Your task to perform on an android device: open app "Google News" Image 0: 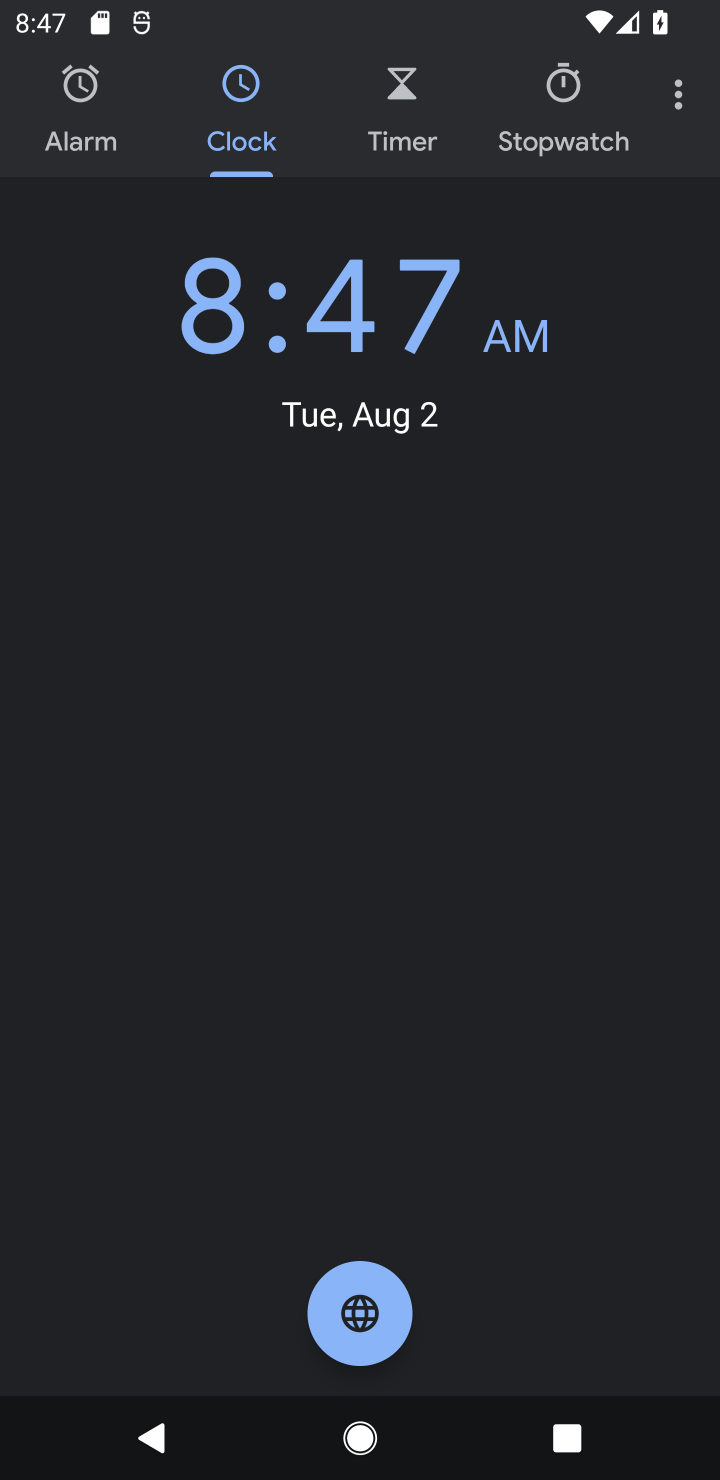
Step 0: press home button
Your task to perform on an android device: open app "Google News" Image 1: 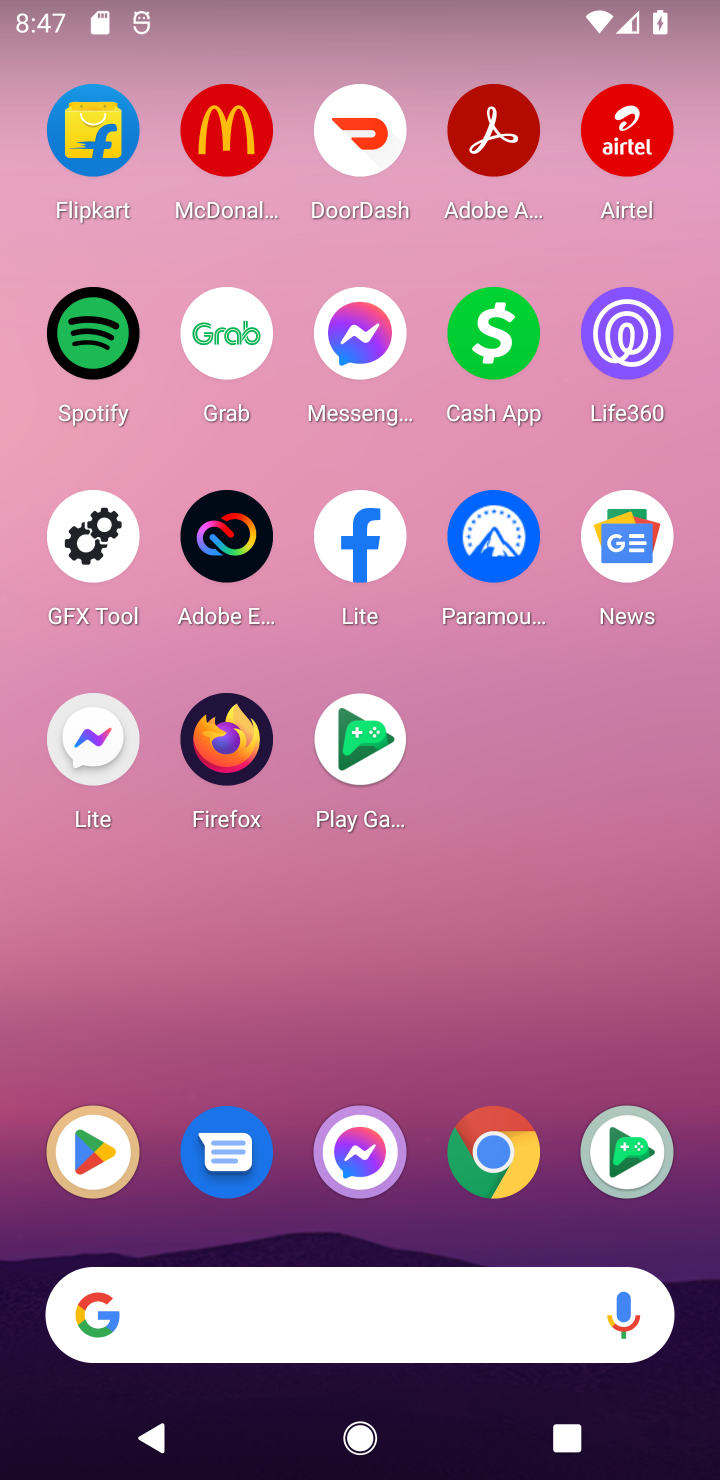
Step 1: click (103, 1134)
Your task to perform on an android device: open app "Google News" Image 2: 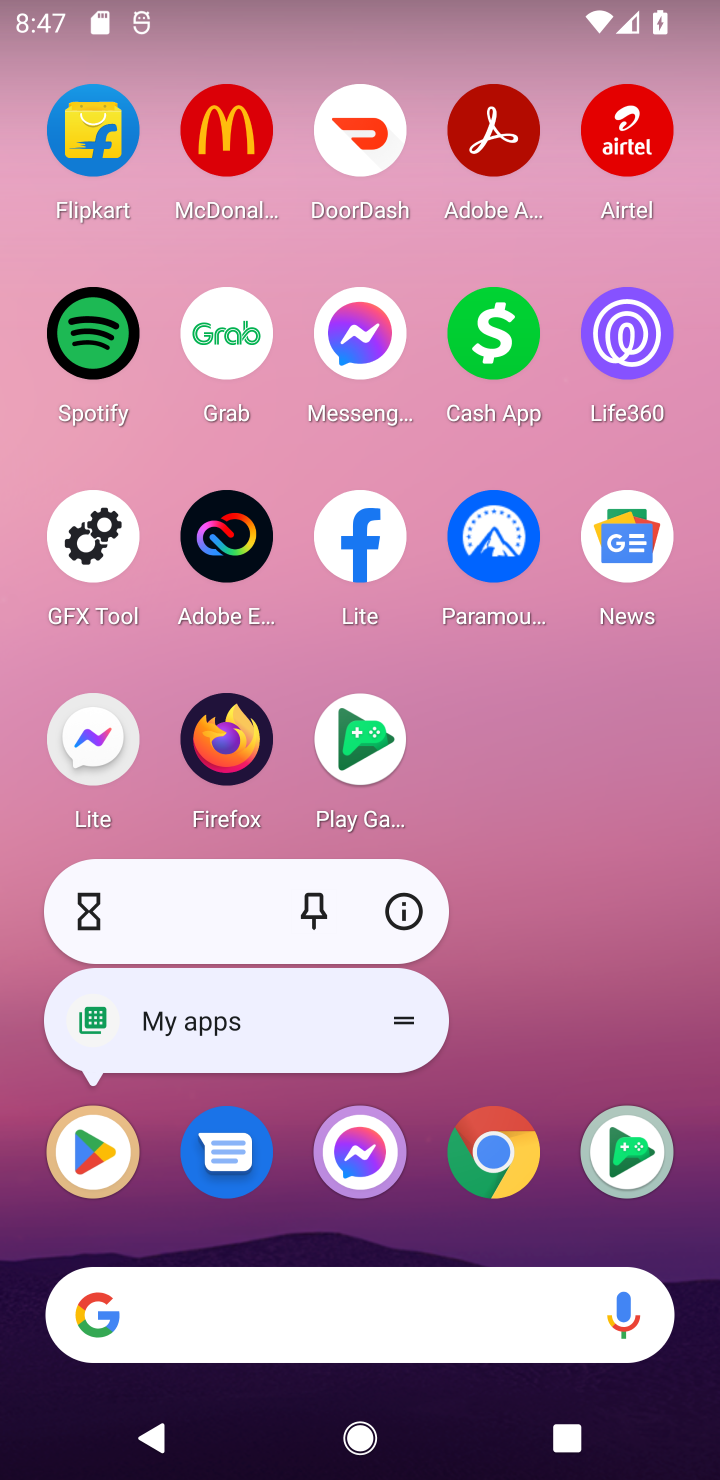
Step 2: click (93, 1176)
Your task to perform on an android device: open app "Google News" Image 3: 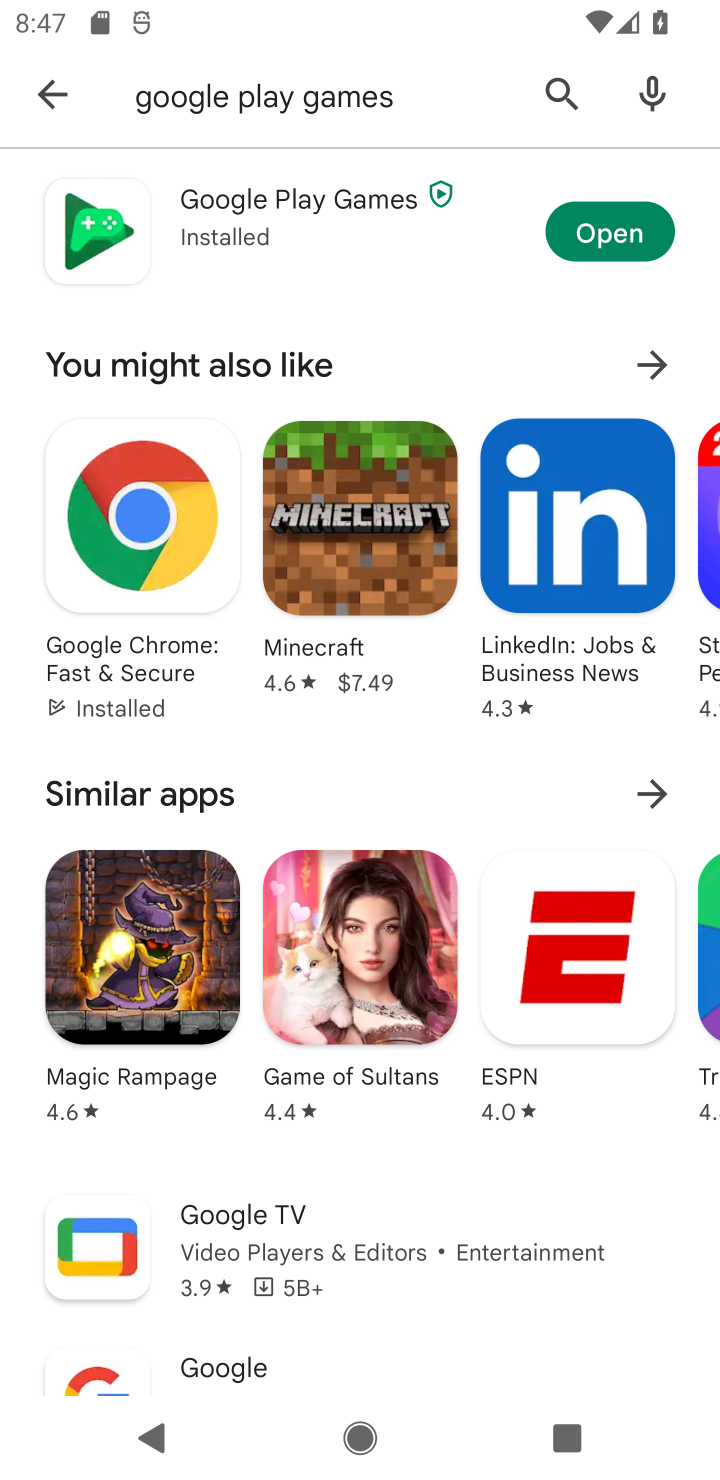
Step 3: click (53, 95)
Your task to perform on an android device: open app "Google News" Image 4: 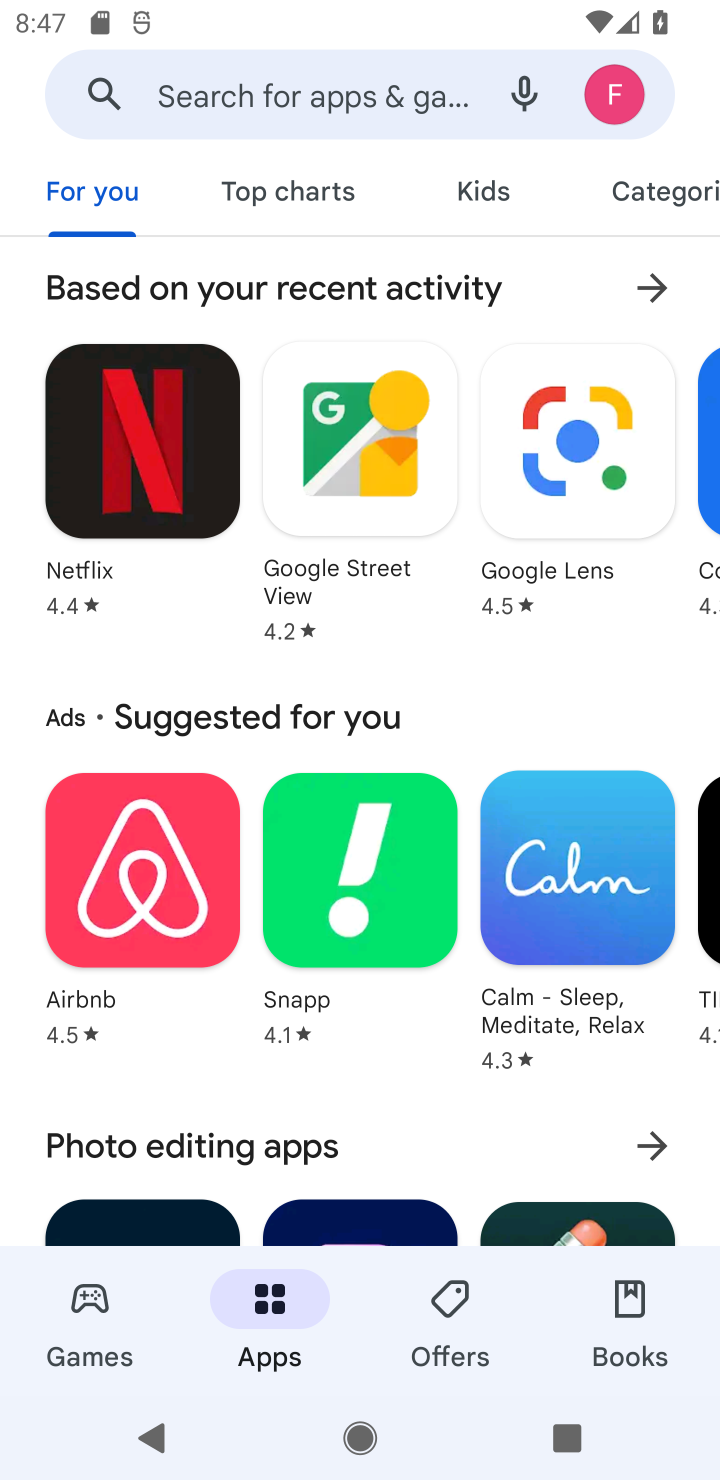
Step 4: click (354, 95)
Your task to perform on an android device: open app "Google News" Image 5: 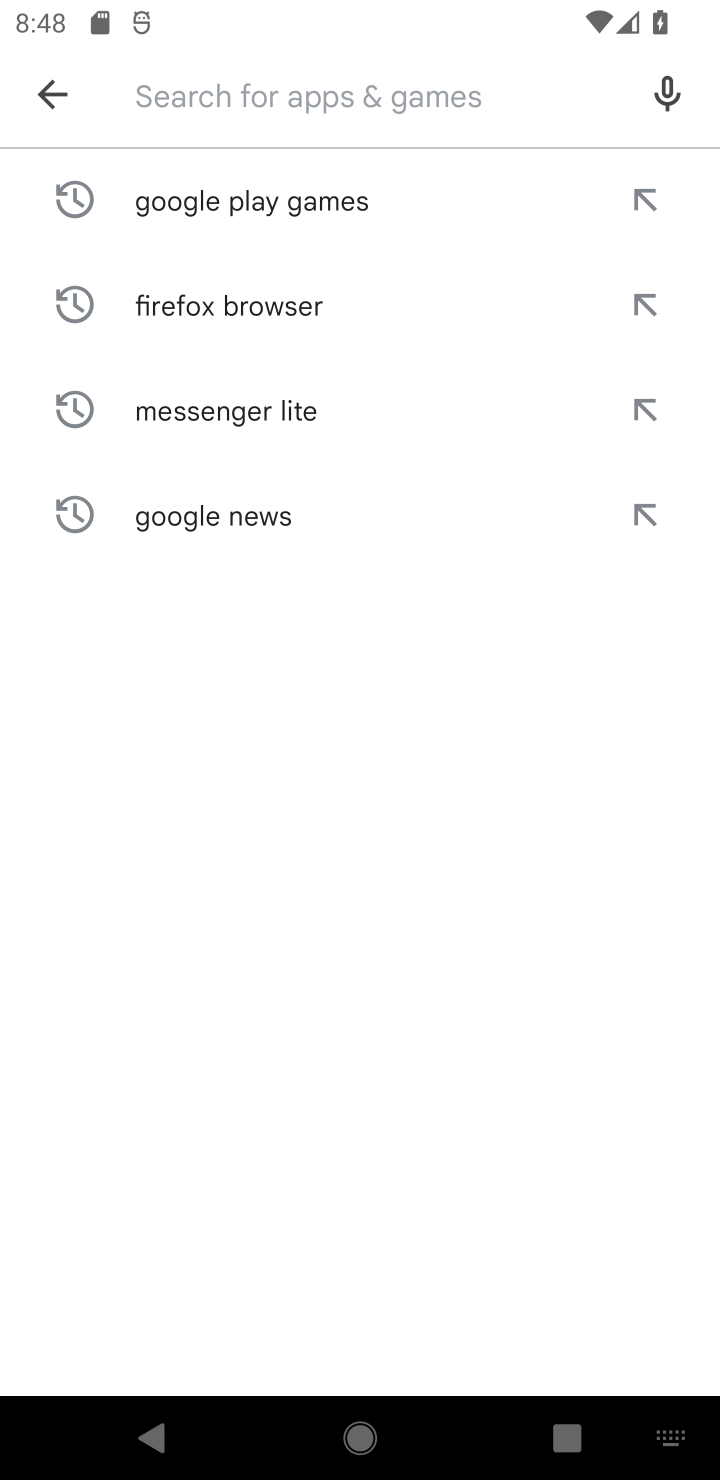
Step 5: click (103, 513)
Your task to perform on an android device: open app "Google News" Image 6: 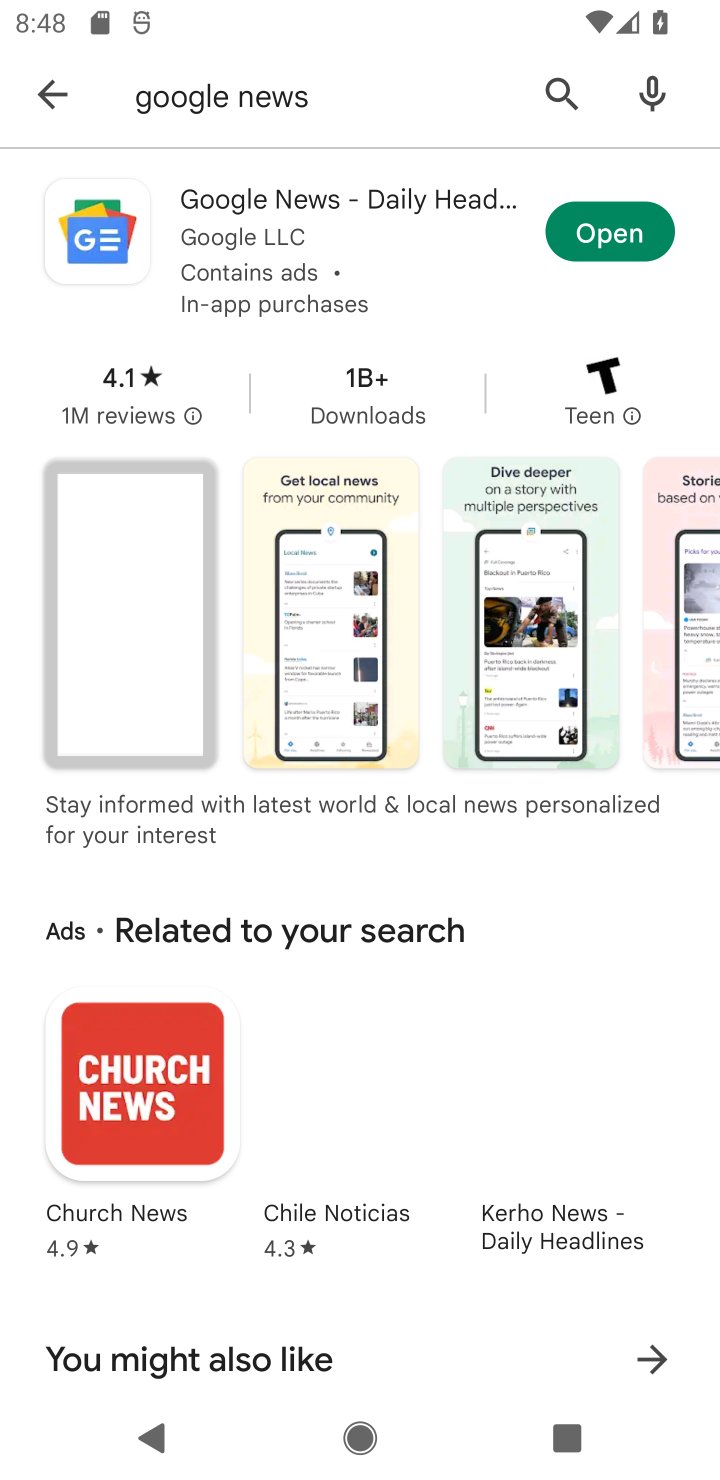
Step 6: click (617, 226)
Your task to perform on an android device: open app "Google News" Image 7: 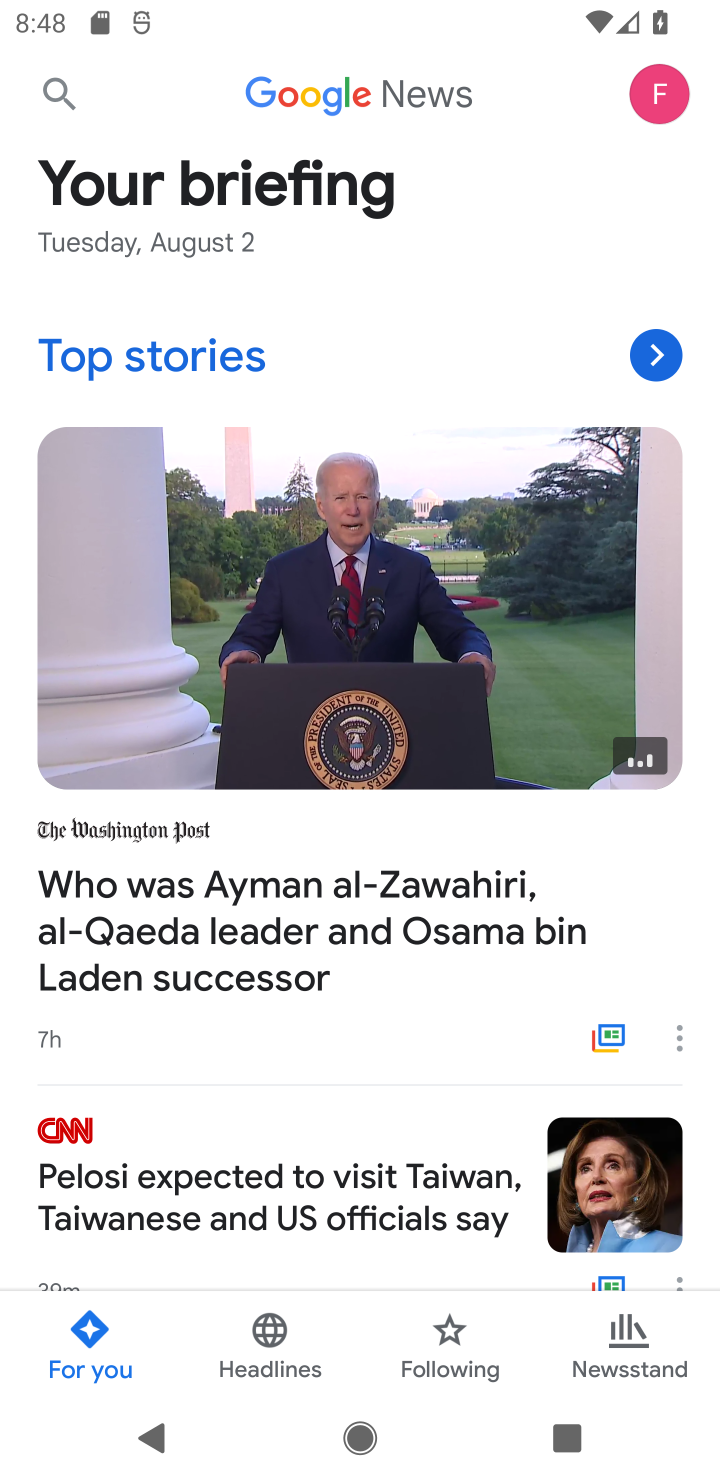
Step 7: task complete